Your task to perform on an android device: Search for seafood restaurants on Google Maps Image 0: 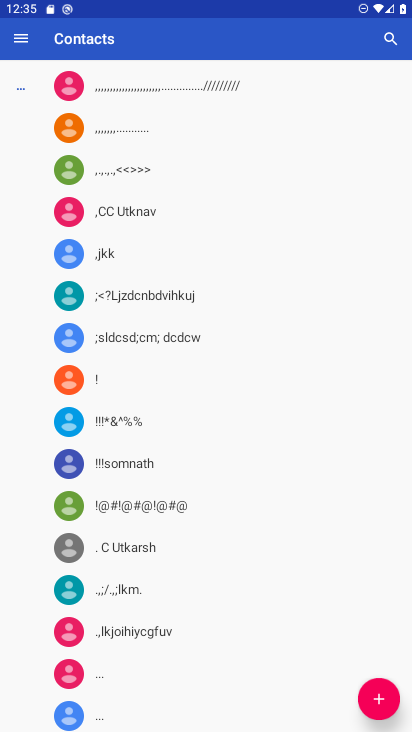
Step 0: press home button
Your task to perform on an android device: Search for seafood restaurants on Google Maps Image 1: 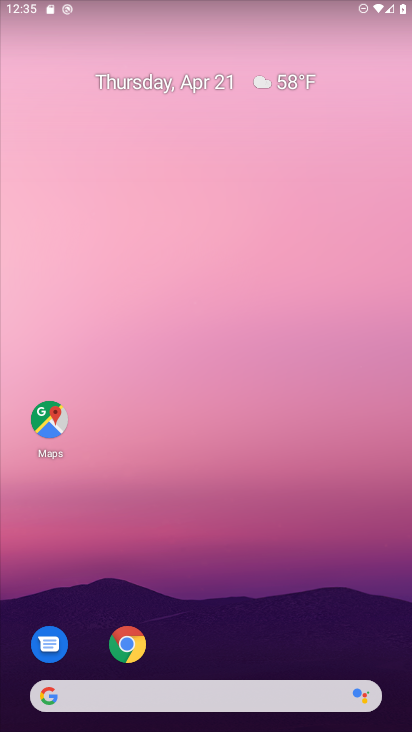
Step 1: click (47, 423)
Your task to perform on an android device: Search for seafood restaurants on Google Maps Image 2: 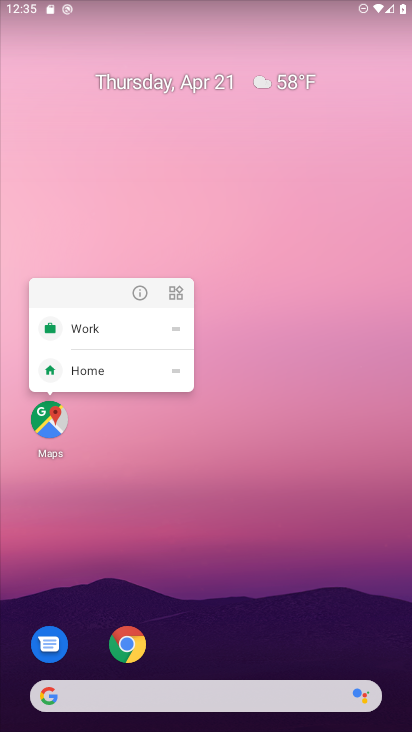
Step 2: click (140, 283)
Your task to perform on an android device: Search for seafood restaurants on Google Maps Image 3: 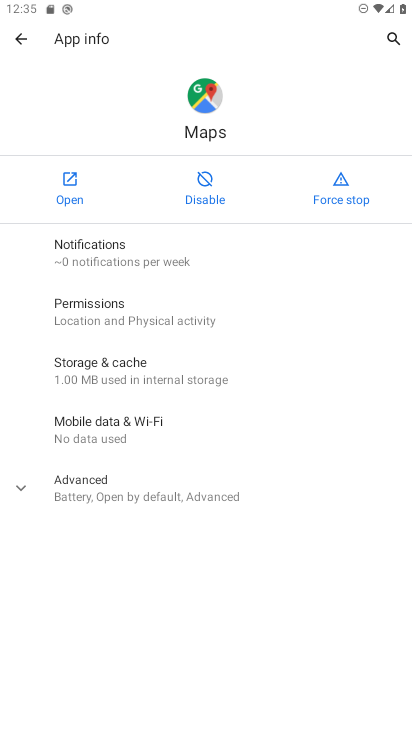
Step 3: click (40, 191)
Your task to perform on an android device: Search for seafood restaurants on Google Maps Image 4: 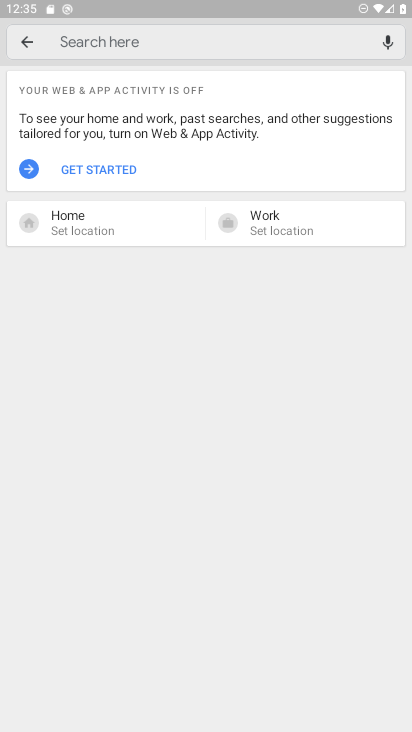
Step 4: click (99, 52)
Your task to perform on an android device: Search for seafood restaurants on Google Maps Image 5: 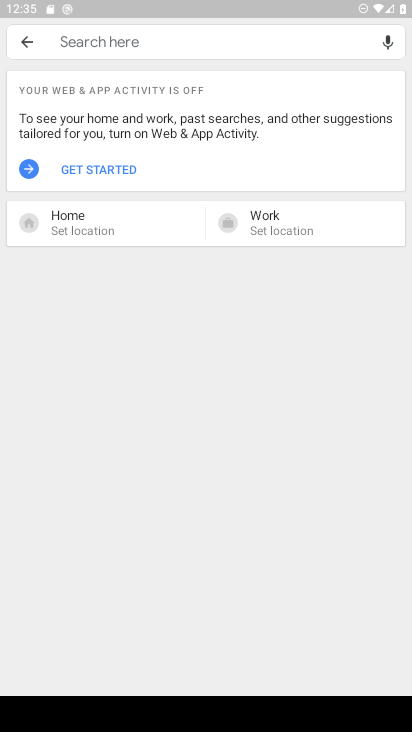
Step 5: type "seafood restaurants"
Your task to perform on an android device: Search for seafood restaurants on Google Maps Image 6: 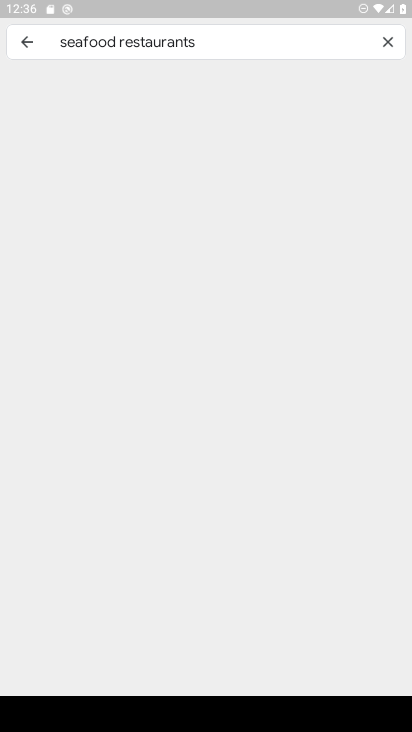
Step 6: click (215, 44)
Your task to perform on an android device: Search for seafood restaurants on Google Maps Image 7: 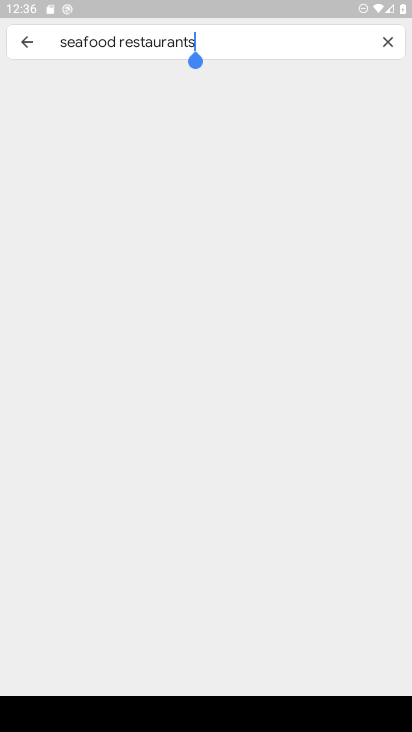
Step 7: click (242, 45)
Your task to perform on an android device: Search for seafood restaurants on Google Maps Image 8: 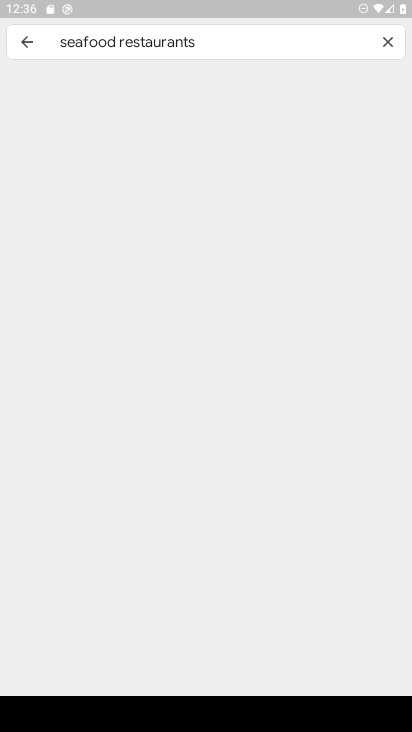
Step 8: click (238, 38)
Your task to perform on an android device: Search for seafood restaurants on Google Maps Image 9: 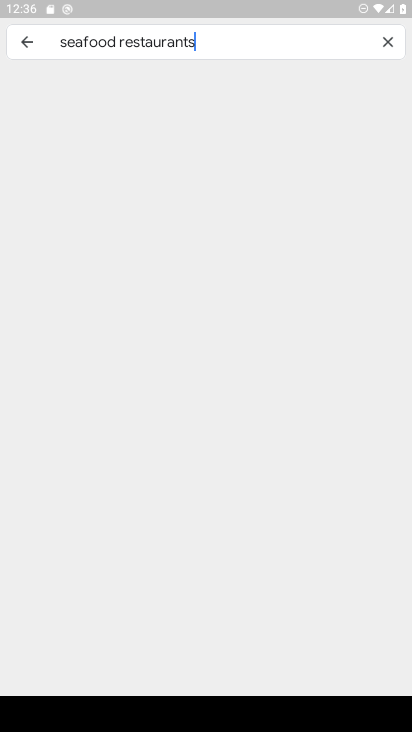
Step 9: click (215, 38)
Your task to perform on an android device: Search for seafood restaurants on Google Maps Image 10: 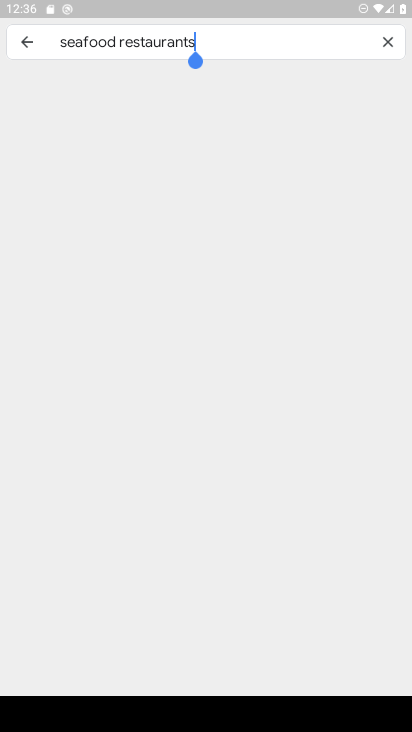
Step 10: task complete